Your task to perform on an android device: Go to sound settings Image 0: 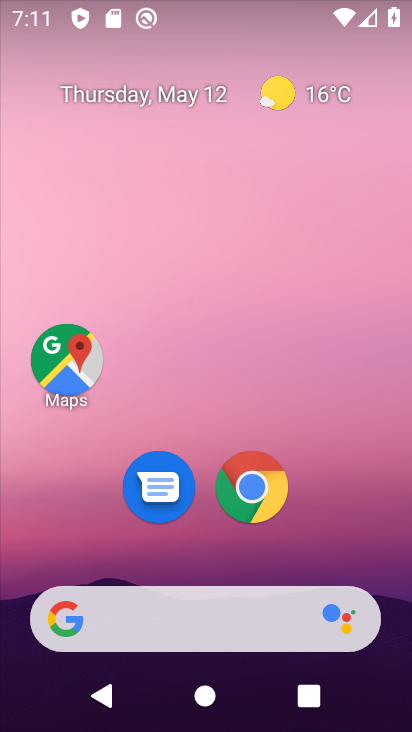
Step 0: drag from (368, 552) to (373, 82)
Your task to perform on an android device: Go to sound settings Image 1: 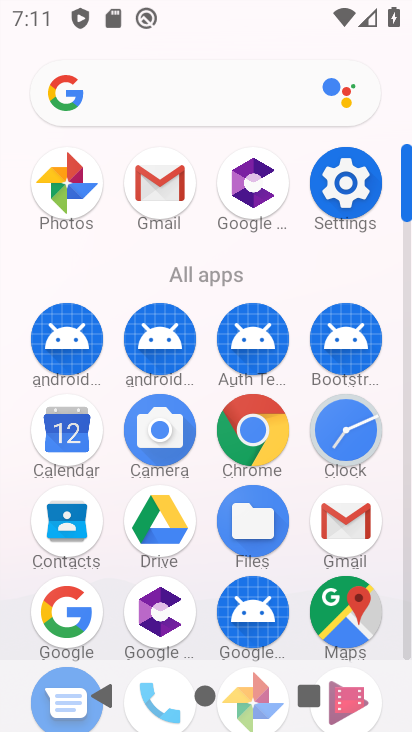
Step 1: click (365, 184)
Your task to perform on an android device: Go to sound settings Image 2: 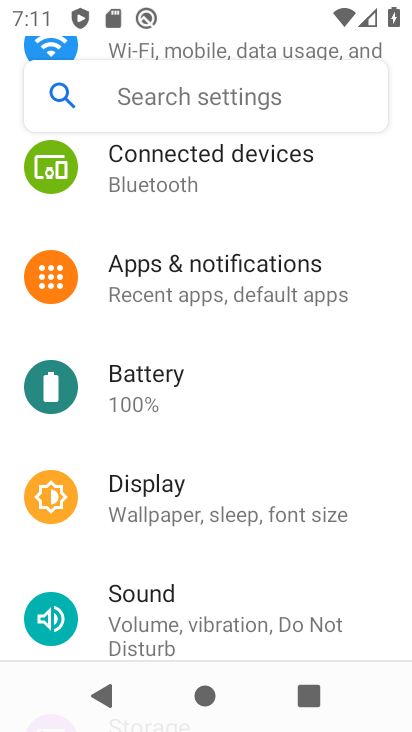
Step 2: drag from (189, 549) to (233, 154)
Your task to perform on an android device: Go to sound settings Image 3: 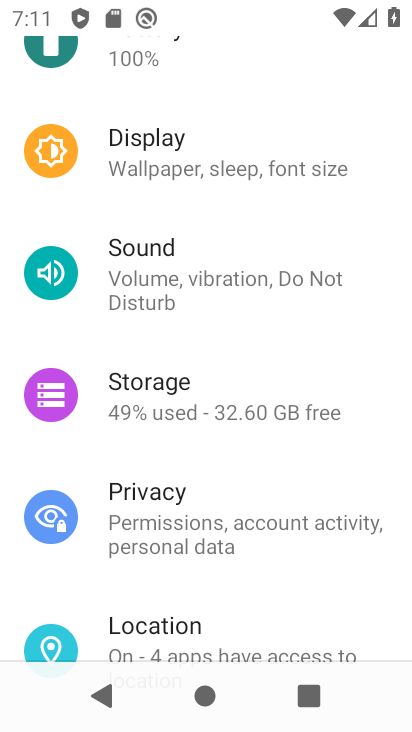
Step 3: drag from (194, 582) to (279, 196)
Your task to perform on an android device: Go to sound settings Image 4: 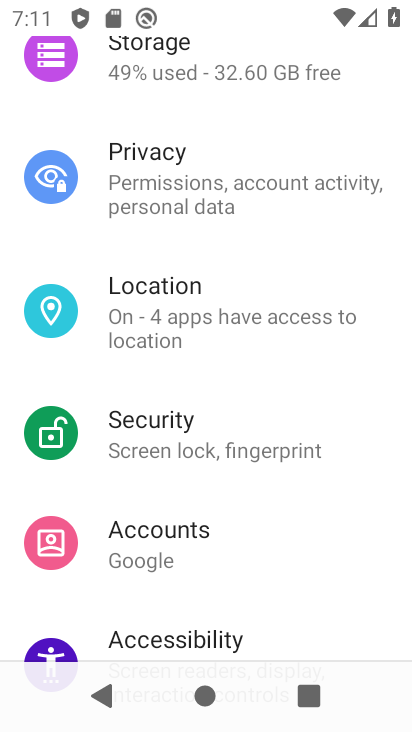
Step 4: drag from (235, 573) to (312, 202)
Your task to perform on an android device: Go to sound settings Image 5: 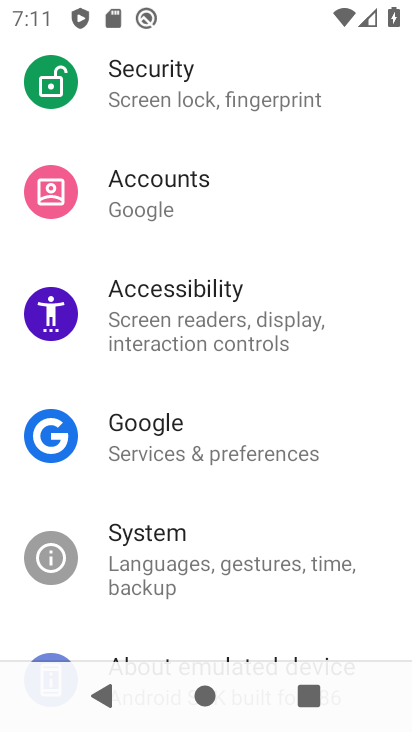
Step 5: drag from (241, 600) to (319, 213)
Your task to perform on an android device: Go to sound settings Image 6: 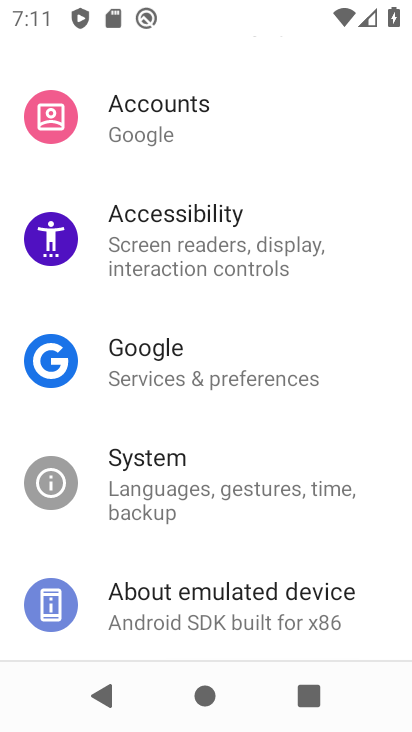
Step 6: drag from (319, 213) to (297, 619)
Your task to perform on an android device: Go to sound settings Image 7: 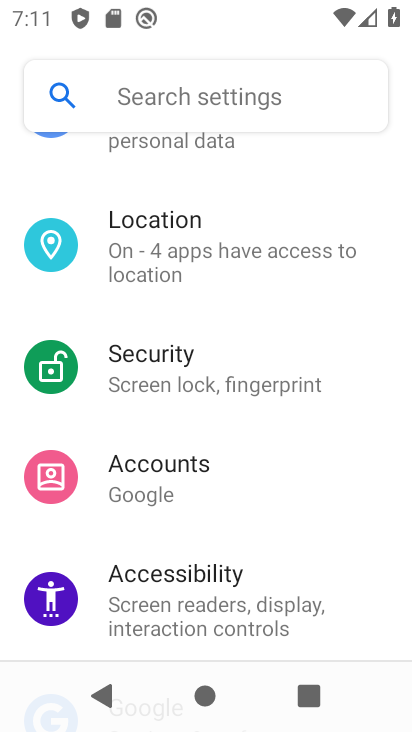
Step 7: drag from (275, 274) to (294, 655)
Your task to perform on an android device: Go to sound settings Image 8: 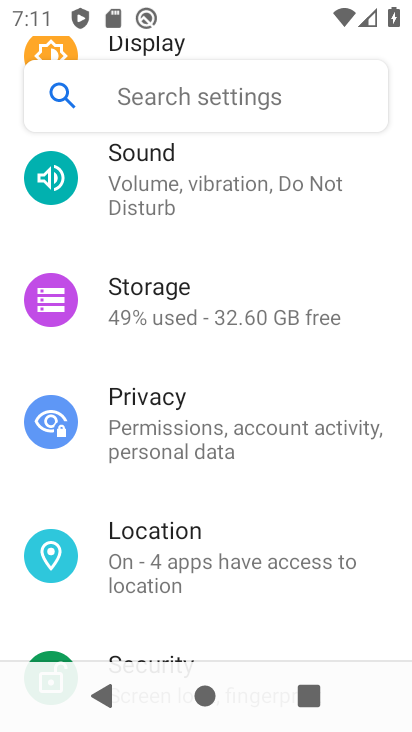
Step 8: click (276, 188)
Your task to perform on an android device: Go to sound settings Image 9: 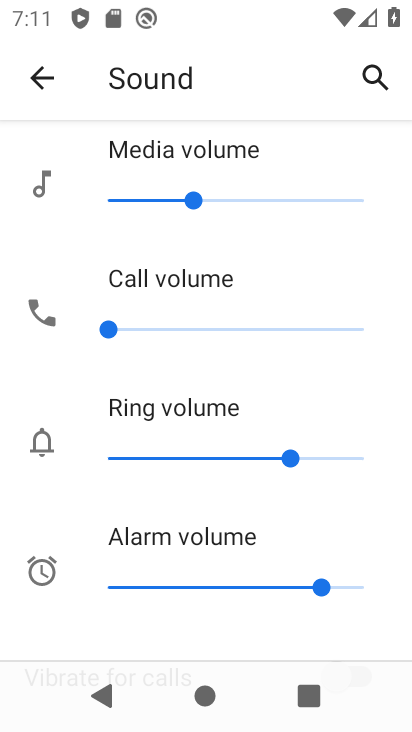
Step 9: task complete